Your task to perform on an android device: Go to display settings Image 0: 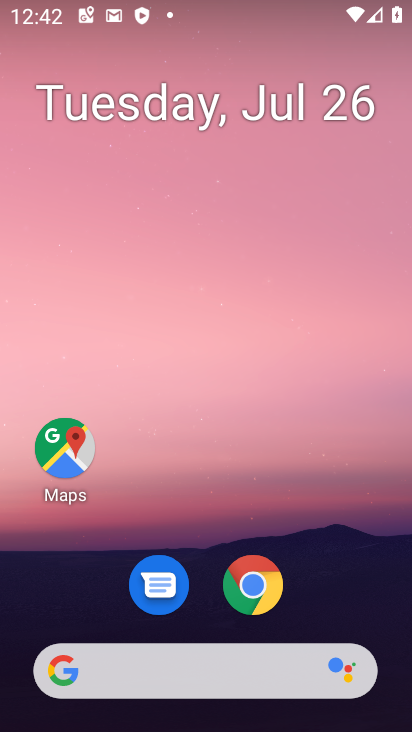
Step 0: drag from (159, 680) to (277, 30)
Your task to perform on an android device: Go to display settings Image 1: 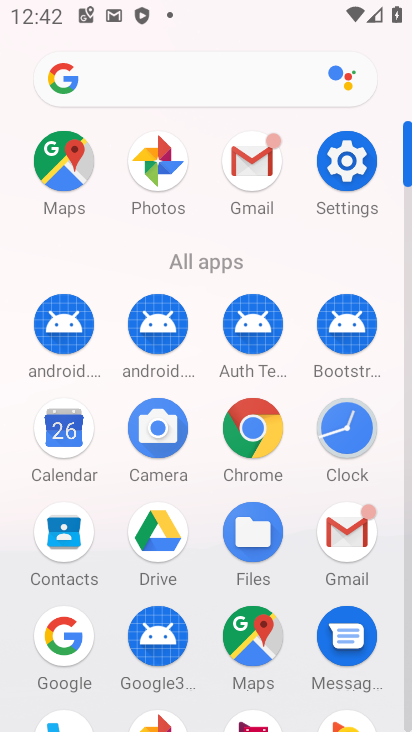
Step 1: click (346, 161)
Your task to perform on an android device: Go to display settings Image 2: 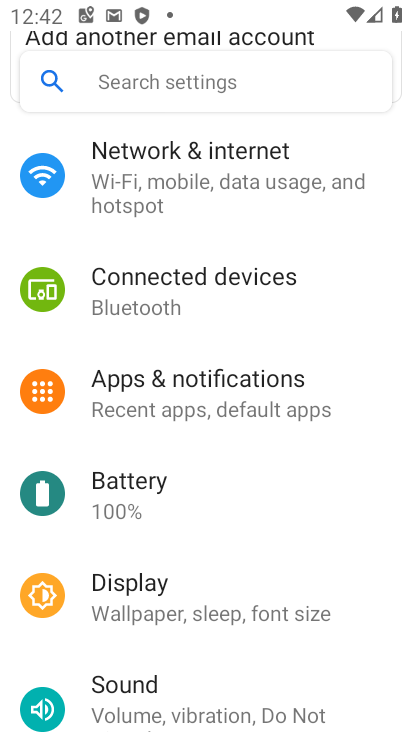
Step 2: drag from (240, 570) to (355, 178)
Your task to perform on an android device: Go to display settings Image 3: 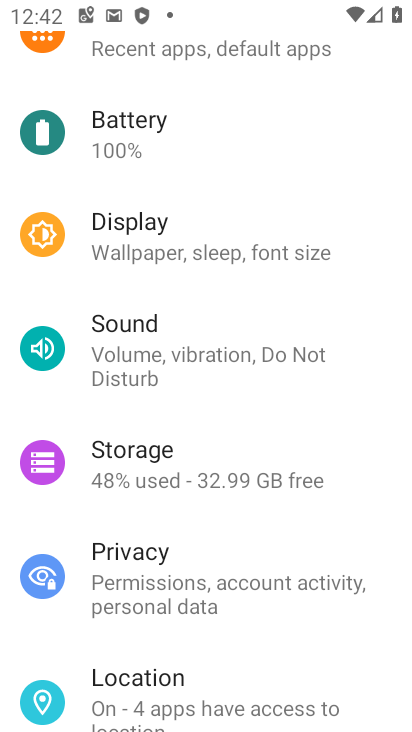
Step 3: click (213, 245)
Your task to perform on an android device: Go to display settings Image 4: 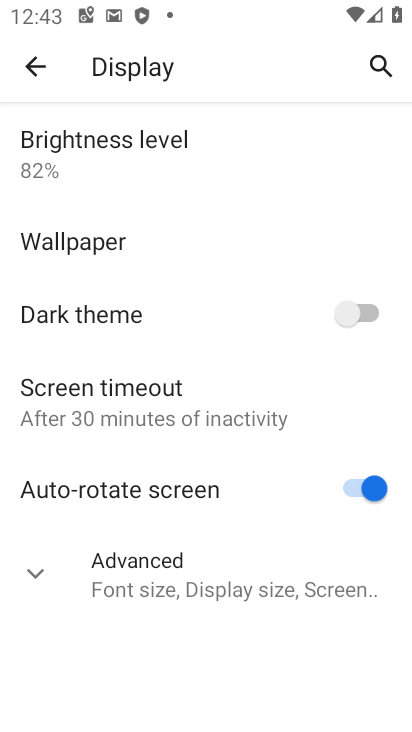
Step 4: task complete